Your task to perform on an android device: What's on my calendar tomorrow? Image 0: 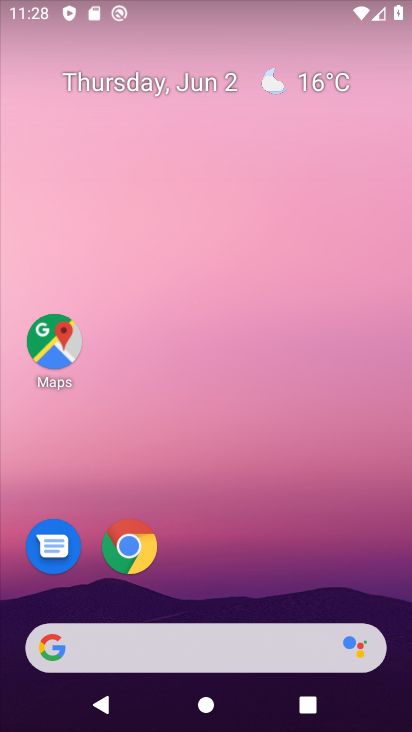
Step 0: drag from (331, 582) to (279, 64)
Your task to perform on an android device: What's on my calendar tomorrow? Image 1: 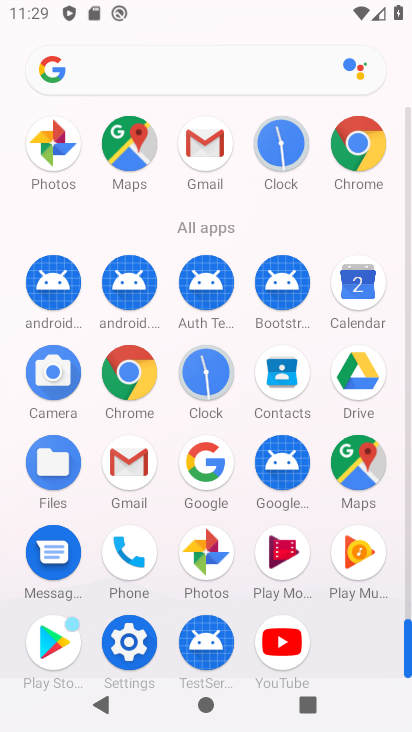
Step 1: click (359, 265)
Your task to perform on an android device: What's on my calendar tomorrow? Image 2: 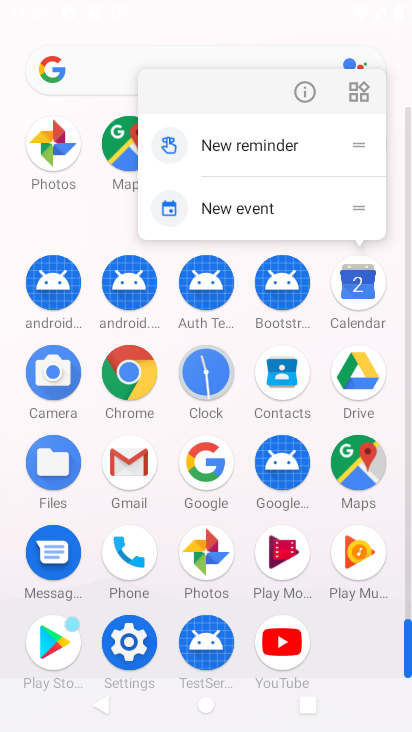
Step 2: click (359, 273)
Your task to perform on an android device: What's on my calendar tomorrow? Image 3: 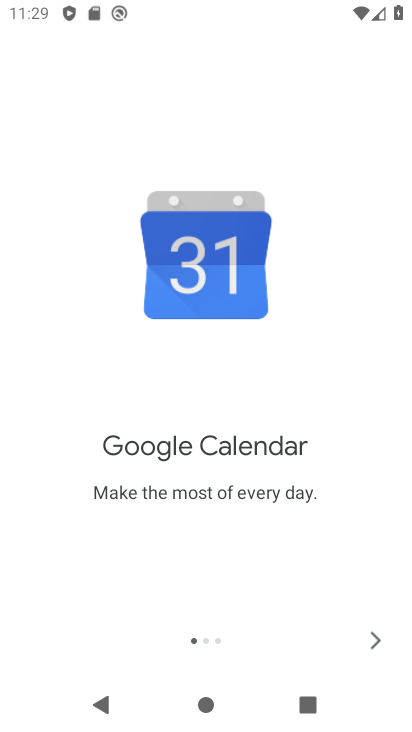
Step 3: click (365, 640)
Your task to perform on an android device: What's on my calendar tomorrow? Image 4: 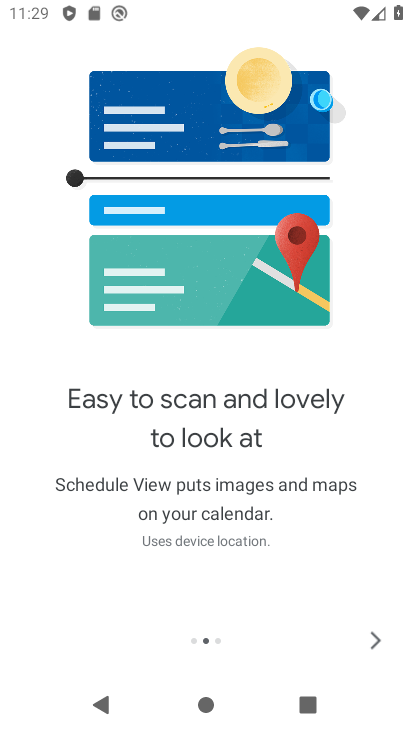
Step 4: click (369, 639)
Your task to perform on an android device: What's on my calendar tomorrow? Image 5: 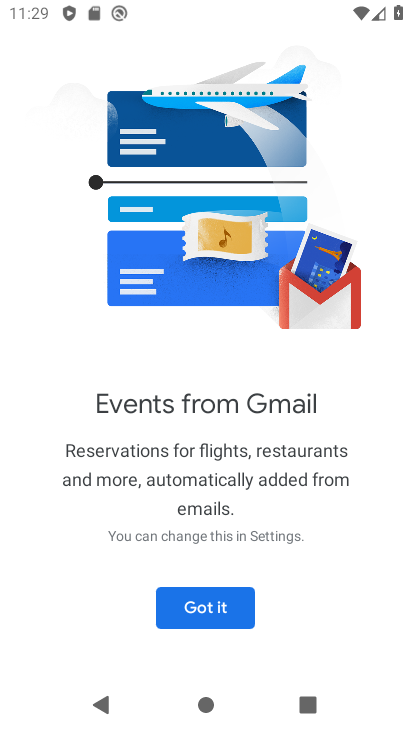
Step 5: click (224, 595)
Your task to perform on an android device: What's on my calendar tomorrow? Image 6: 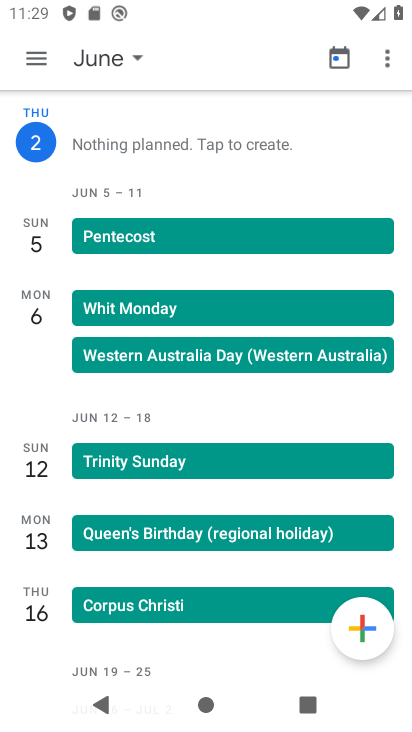
Step 6: task complete